Your task to perform on an android device: turn off notifications in google photos Image 0: 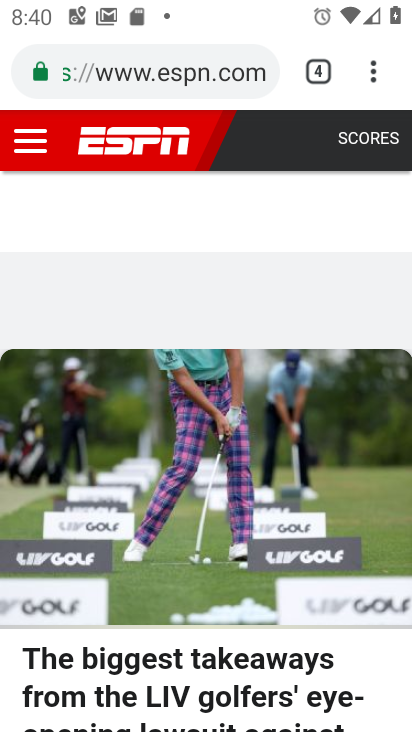
Step 0: press home button
Your task to perform on an android device: turn off notifications in google photos Image 1: 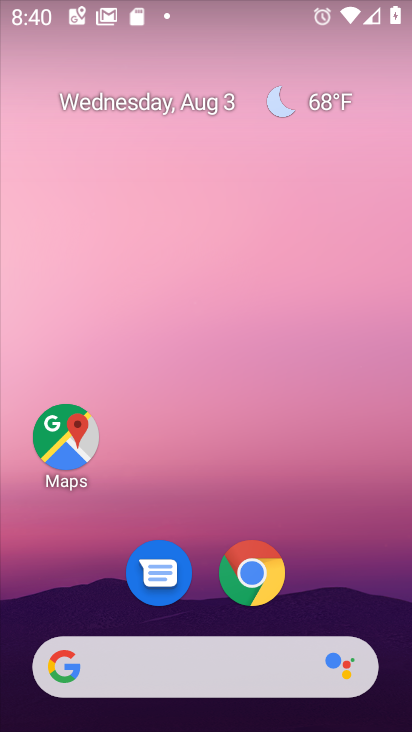
Step 1: drag from (332, 534) to (319, 0)
Your task to perform on an android device: turn off notifications in google photos Image 2: 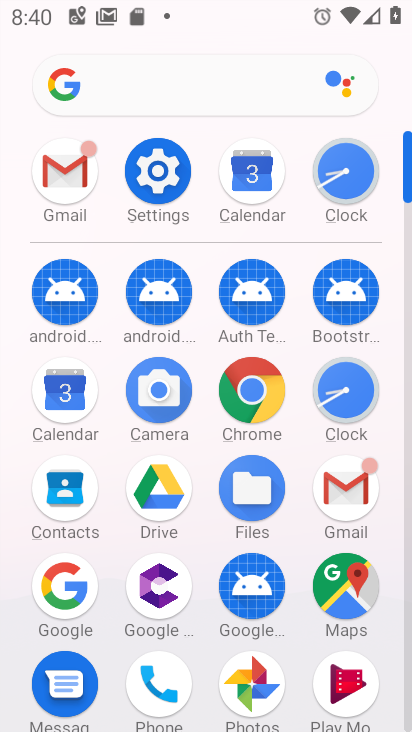
Step 2: click (247, 682)
Your task to perform on an android device: turn off notifications in google photos Image 3: 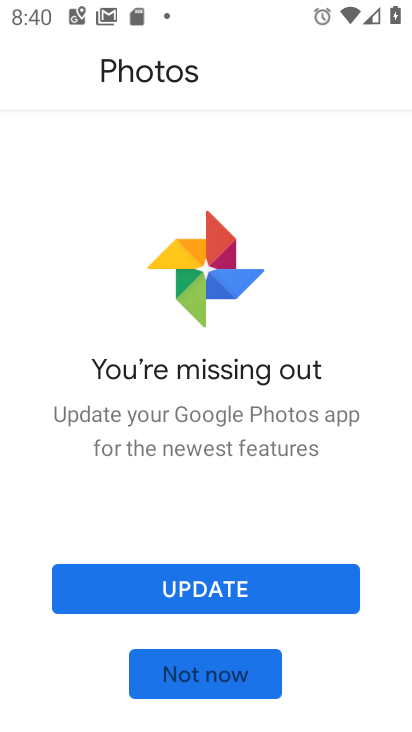
Step 3: click (193, 669)
Your task to perform on an android device: turn off notifications in google photos Image 4: 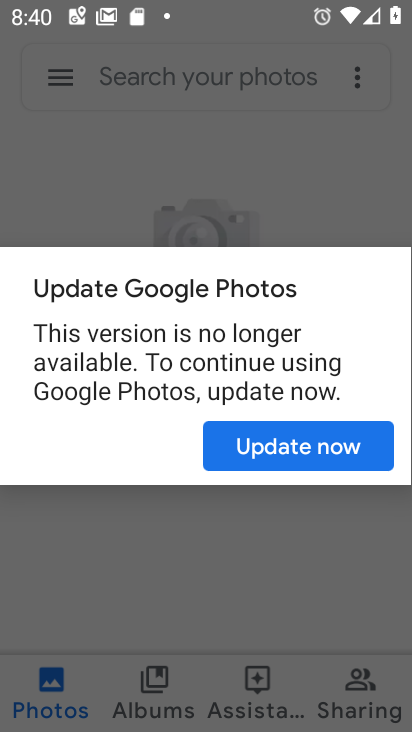
Step 4: click (261, 455)
Your task to perform on an android device: turn off notifications in google photos Image 5: 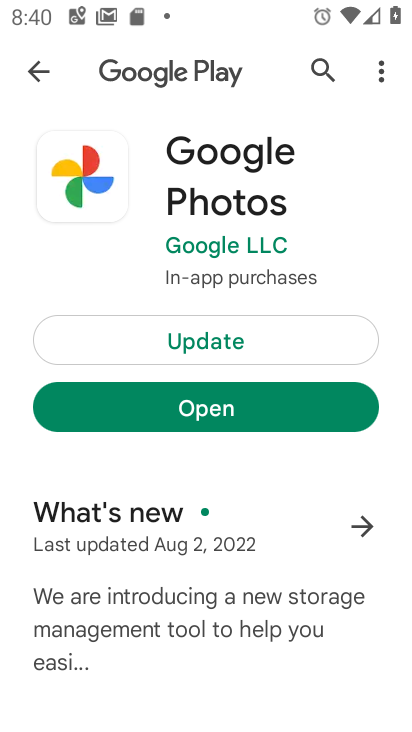
Step 5: click (204, 411)
Your task to perform on an android device: turn off notifications in google photos Image 6: 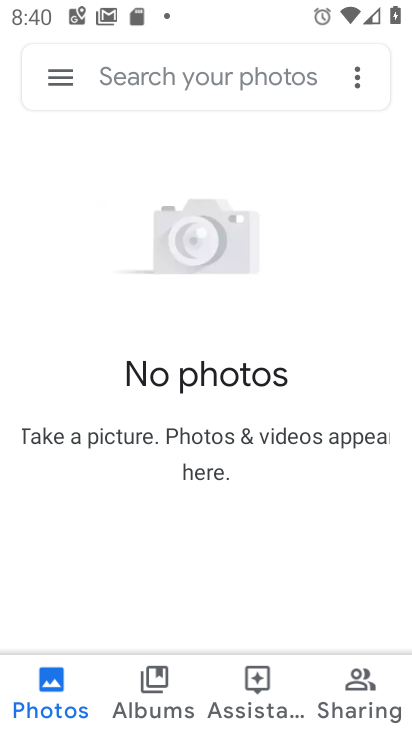
Step 6: click (61, 80)
Your task to perform on an android device: turn off notifications in google photos Image 7: 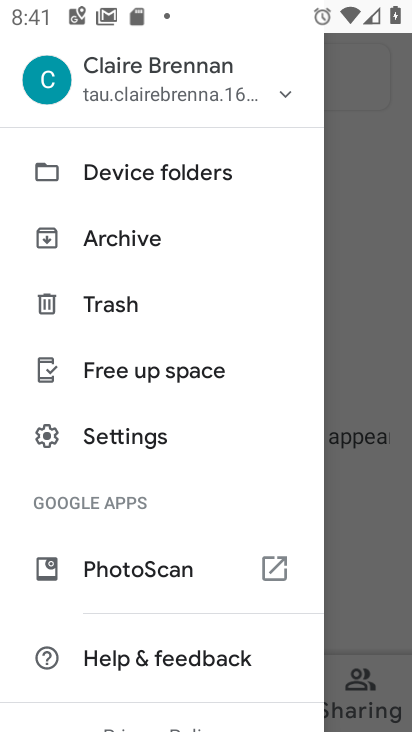
Step 7: click (106, 431)
Your task to perform on an android device: turn off notifications in google photos Image 8: 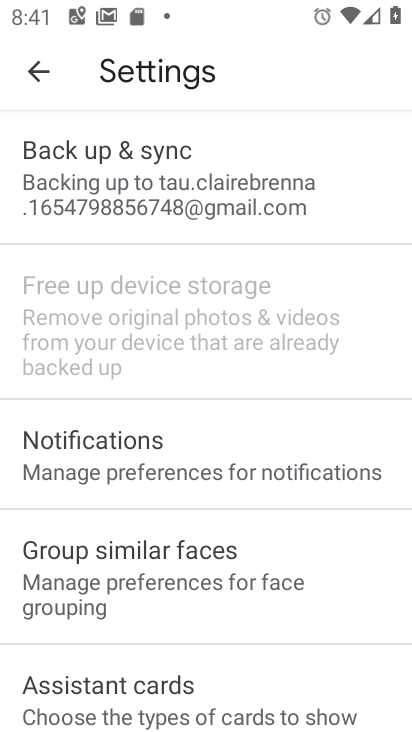
Step 8: click (106, 438)
Your task to perform on an android device: turn off notifications in google photos Image 9: 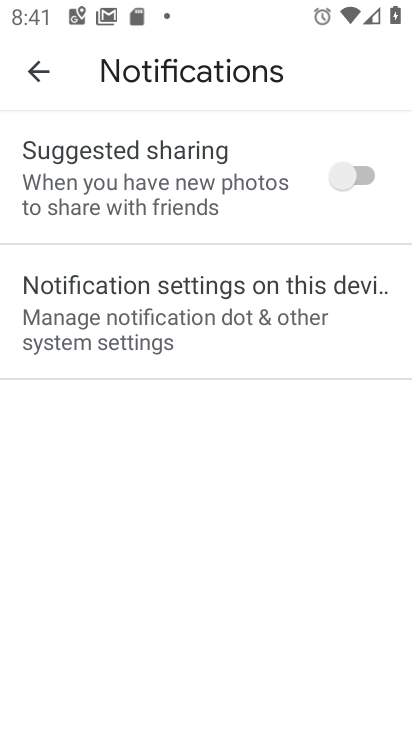
Step 9: click (129, 301)
Your task to perform on an android device: turn off notifications in google photos Image 10: 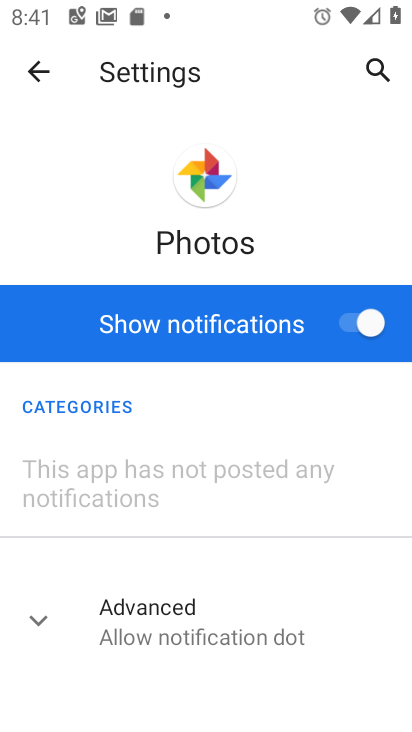
Step 10: click (374, 326)
Your task to perform on an android device: turn off notifications in google photos Image 11: 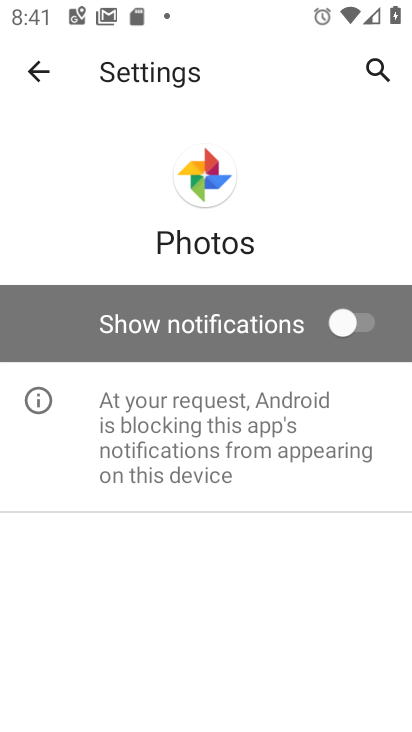
Step 11: task complete